Your task to perform on an android device: toggle wifi Image 0: 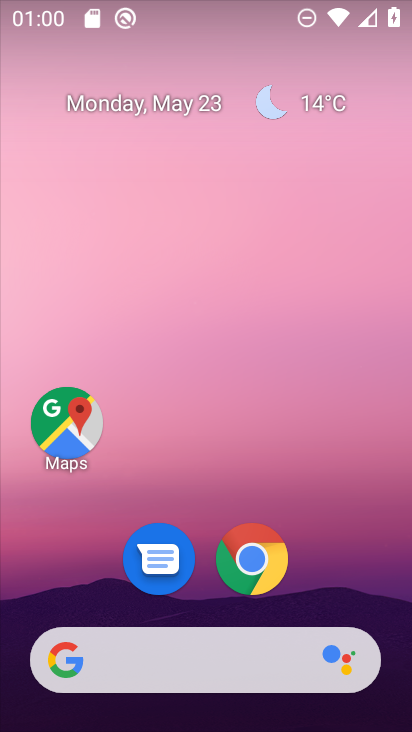
Step 0: drag from (317, 592) to (258, 10)
Your task to perform on an android device: toggle wifi Image 1: 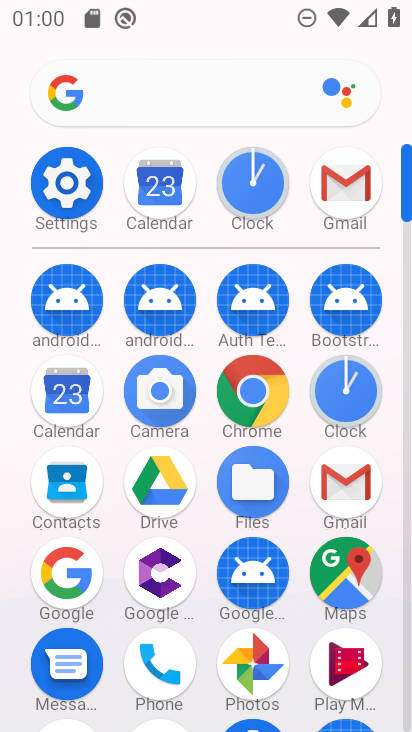
Step 1: click (72, 185)
Your task to perform on an android device: toggle wifi Image 2: 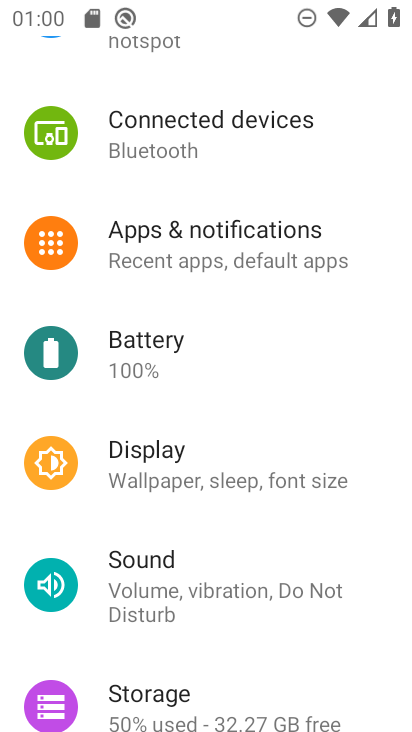
Step 2: drag from (306, 219) to (283, 677)
Your task to perform on an android device: toggle wifi Image 3: 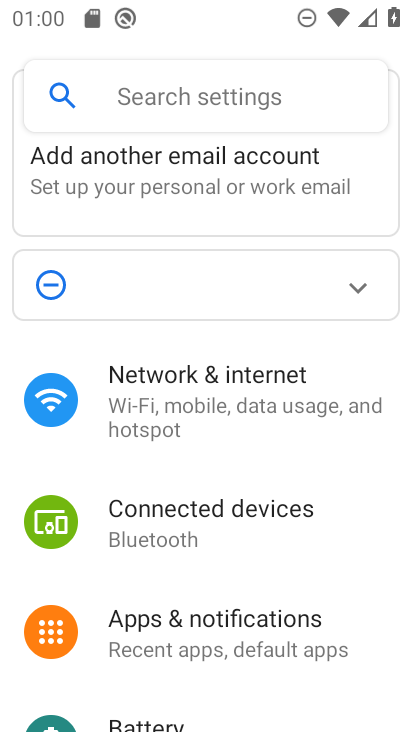
Step 3: click (132, 396)
Your task to perform on an android device: toggle wifi Image 4: 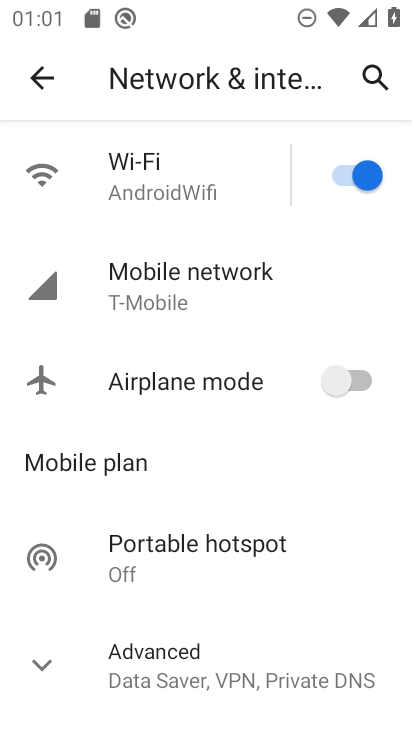
Step 4: click (349, 178)
Your task to perform on an android device: toggle wifi Image 5: 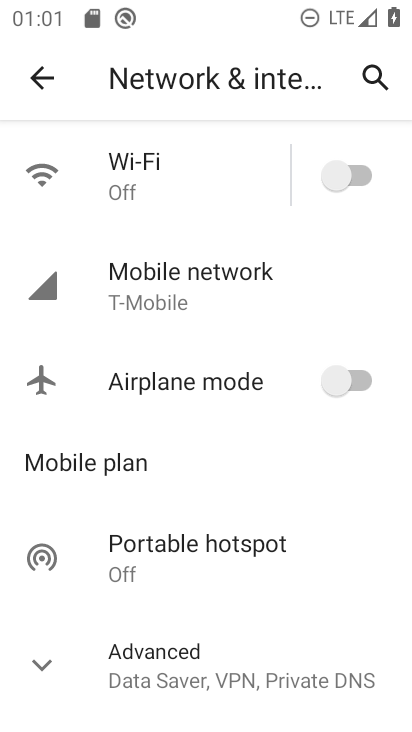
Step 5: task complete